Your task to perform on an android device: toggle improve location accuracy Image 0: 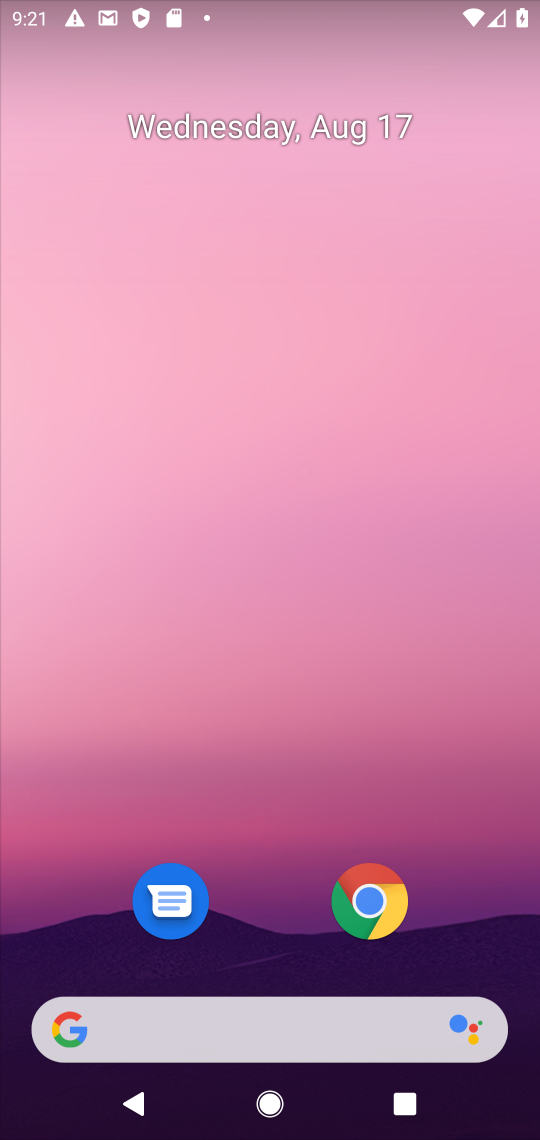
Step 0: drag from (265, 959) to (375, 42)
Your task to perform on an android device: toggle improve location accuracy Image 1: 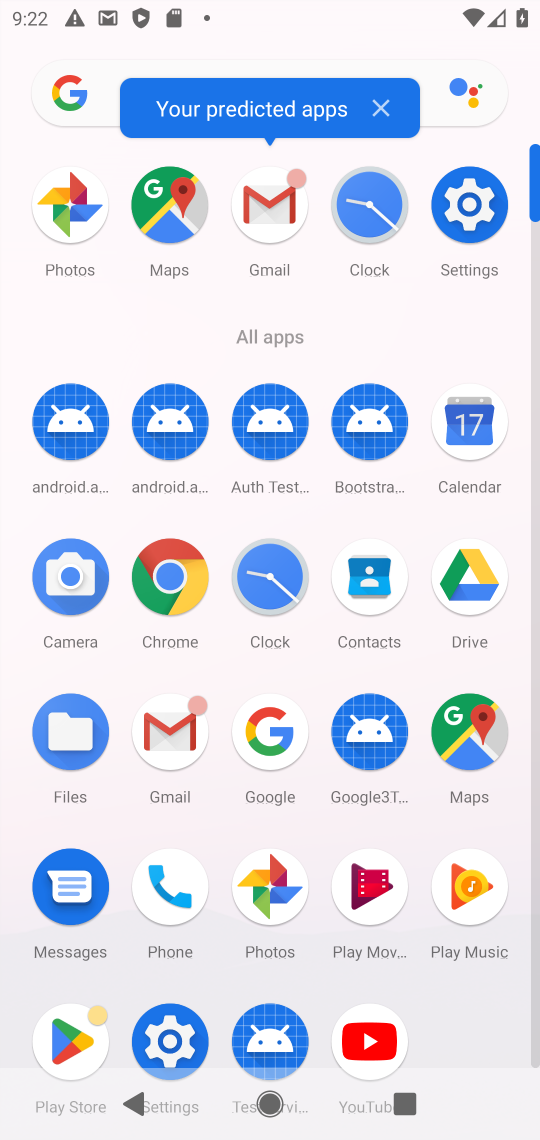
Step 1: click (458, 189)
Your task to perform on an android device: toggle improve location accuracy Image 2: 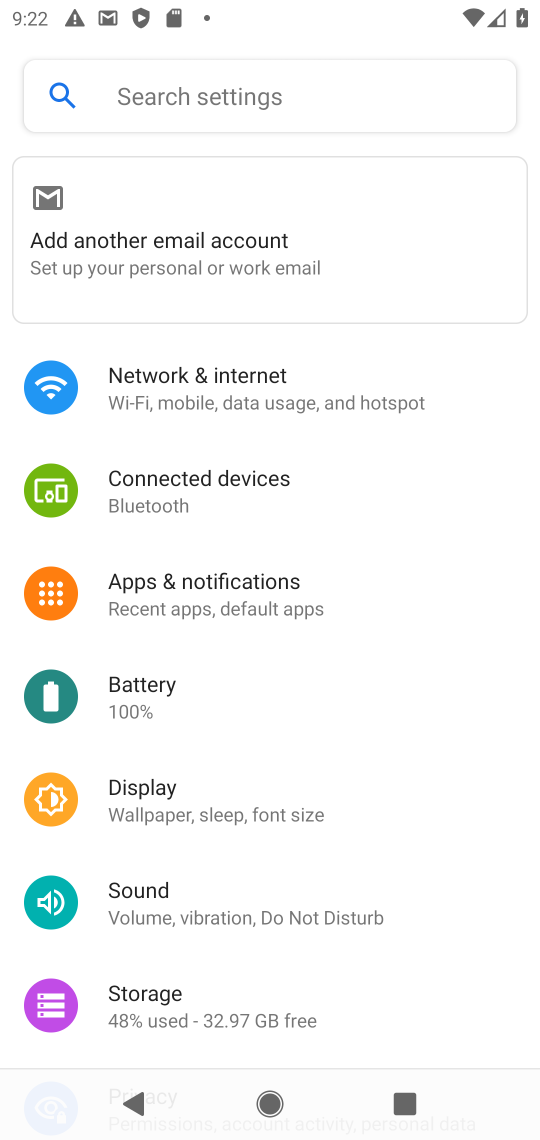
Step 2: drag from (394, 966) to (409, 265)
Your task to perform on an android device: toggle improve location accuracy Image 3: 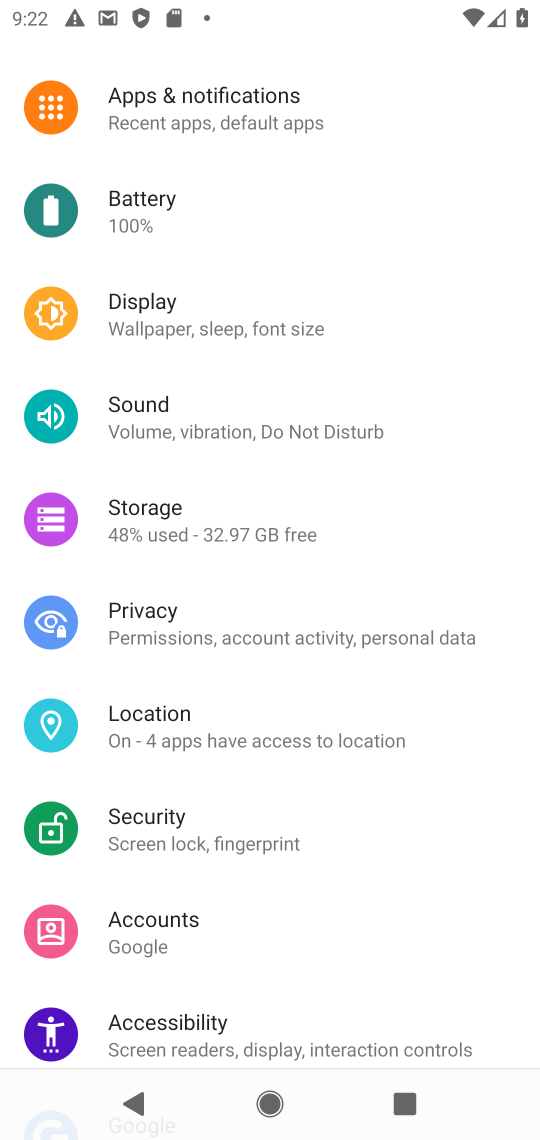
Step 3: click (186, 720)
Your task to perform on an android device: toggle improve location accuracy Image 4: 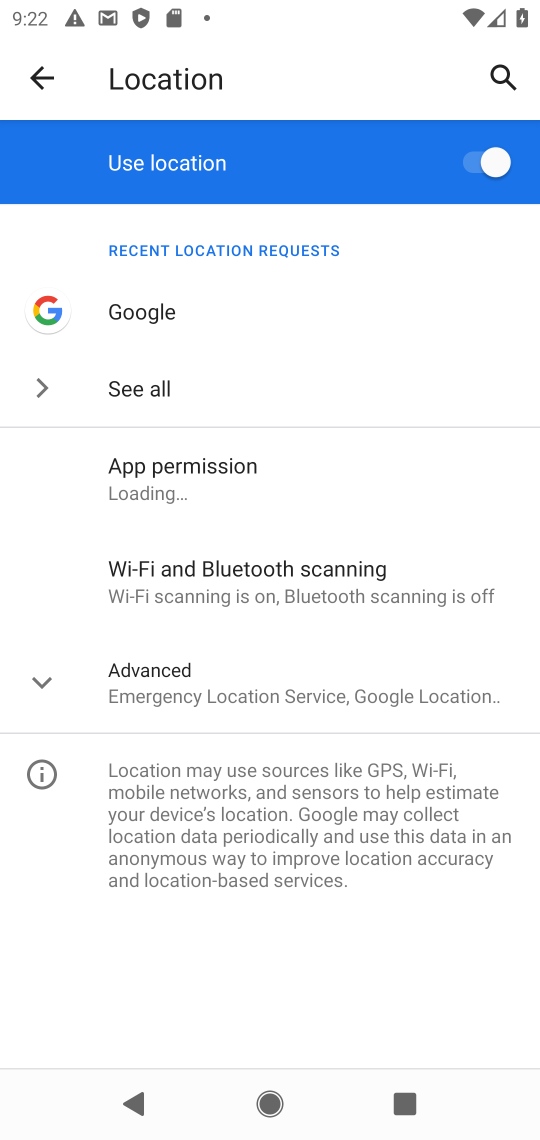
Step 4: click (193, 688)
Your task to perform on an android device: toggle improve location accuracy Image 5: 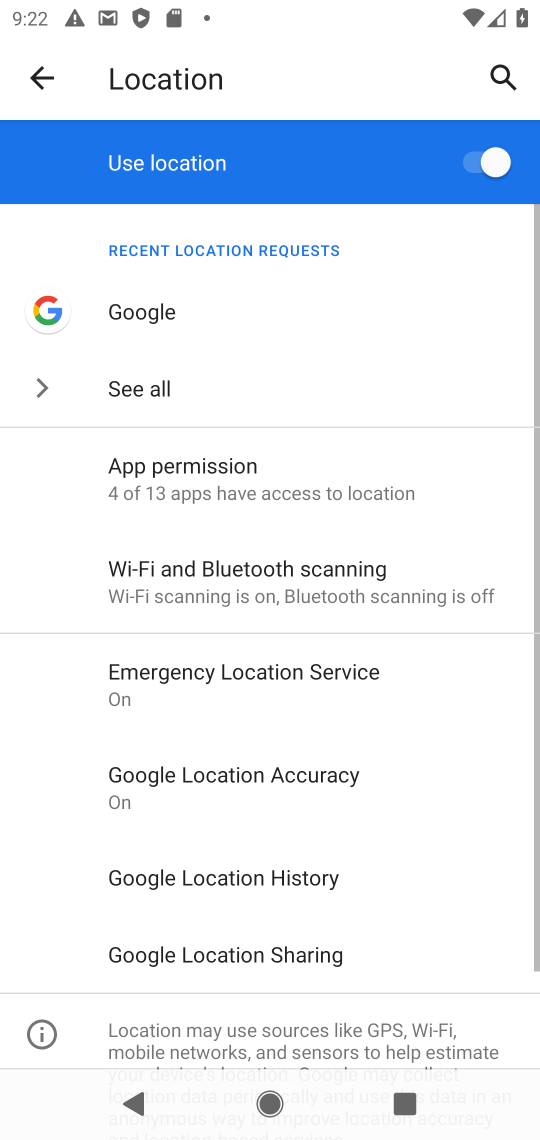
Step 5: click (205, 784)
Your task to perform on an android device: toggle improve location accuracy Image 6: 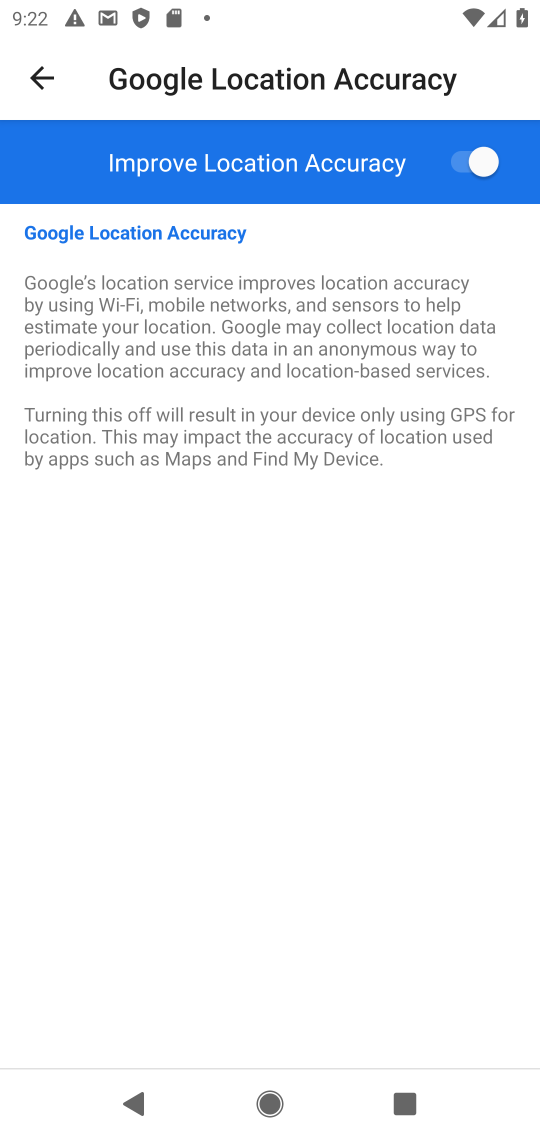
Step 6: click (496, 150)
Your task to perform on an android device: toggle improve location accuracy Image 7: 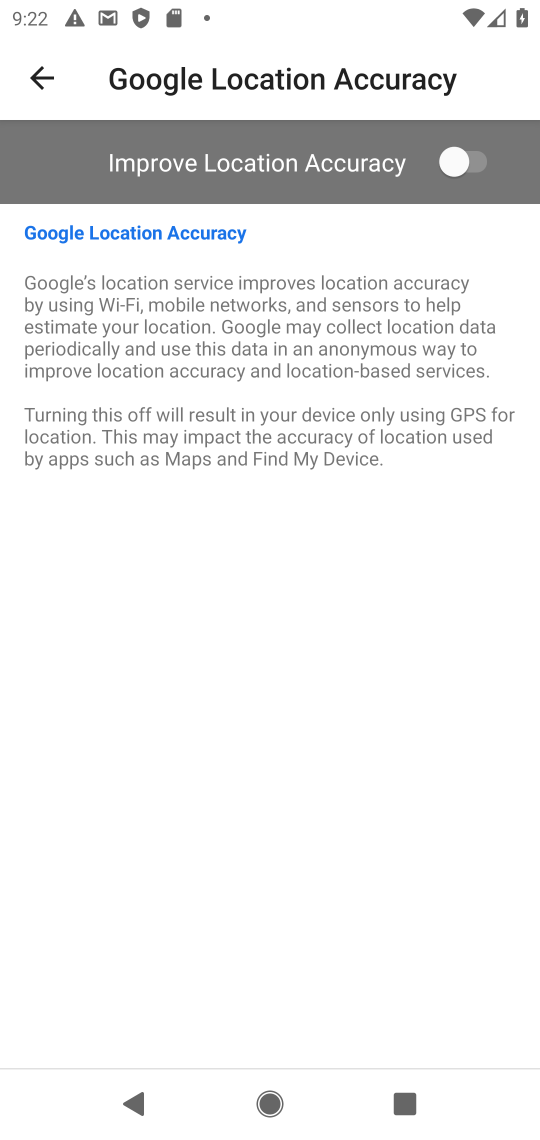
Step 7: task complete